Your task to perform on an android device: all mails in gmail Image 0: 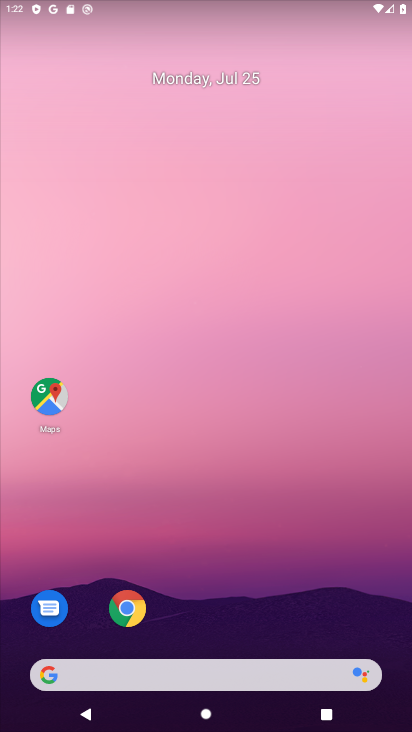
Step 0: drag from (181, 669) to (257, 152)
Your task to perform on an android device: all mails in gmail Image 1: 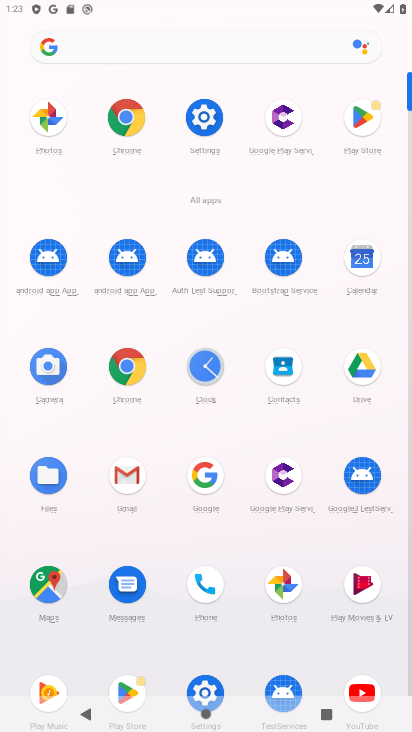
Step 1: click (128, 473)
Your task to perform on an android device: all mails in gmail Image 2: 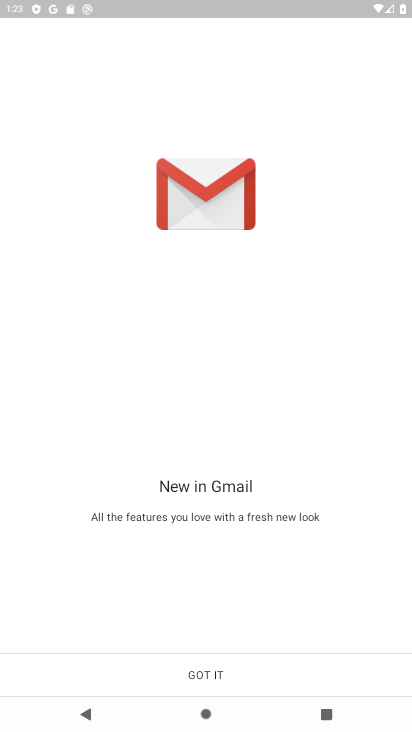
Step 2: click (203, 674)
Your task to perform on an android device: all mails in gmail Image 3: 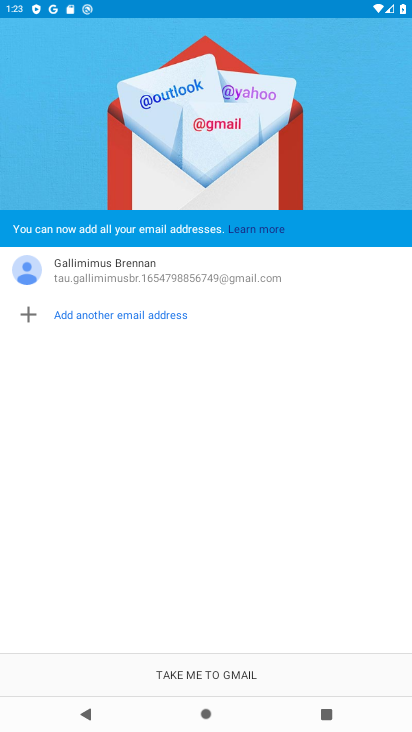
Step 3: click (203, 674)
Your task to perform on an android device: all mails in gmail Image 4: 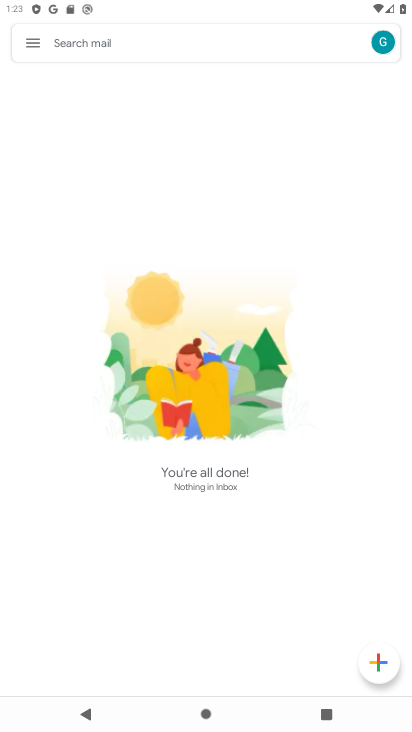
Step 4: click (31, 45)
Your task to perform on an android device: all mails in gmail Image 5: 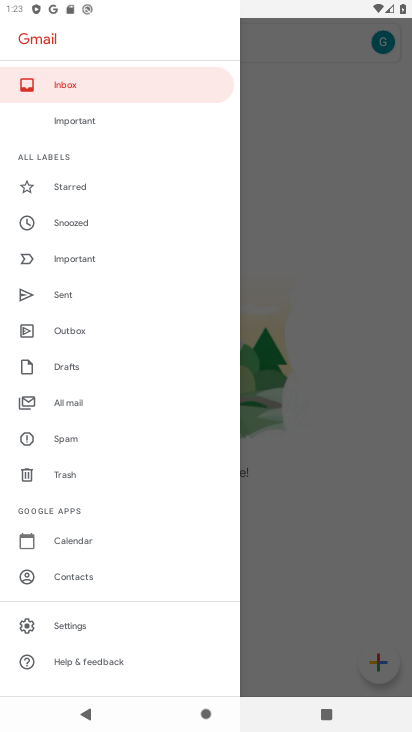
Step 5: click (75, 401)
Your task to perform on an android device: all mails in gmail Image 6: 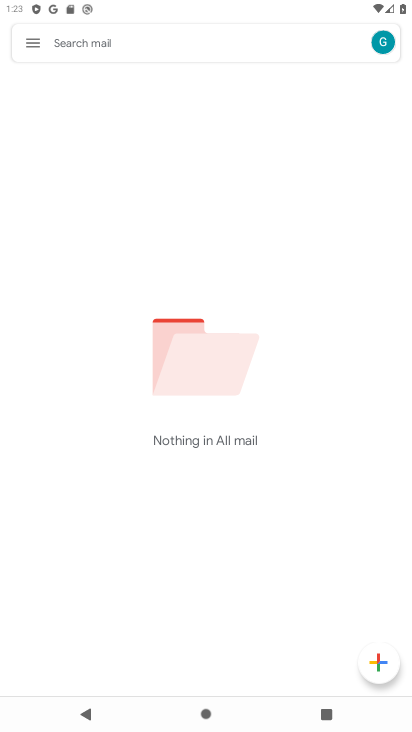
Step 6: task complete